Your task to perform on an android device: Open network settings Image 0: 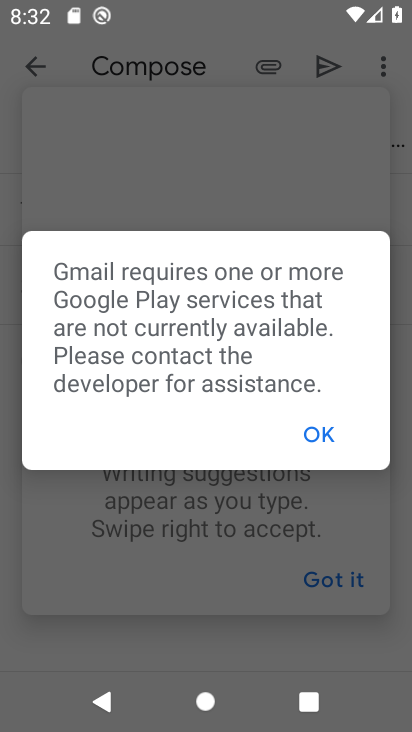
Step 0: press home button
Your task to perform on an android device: Open network settings Image 1: 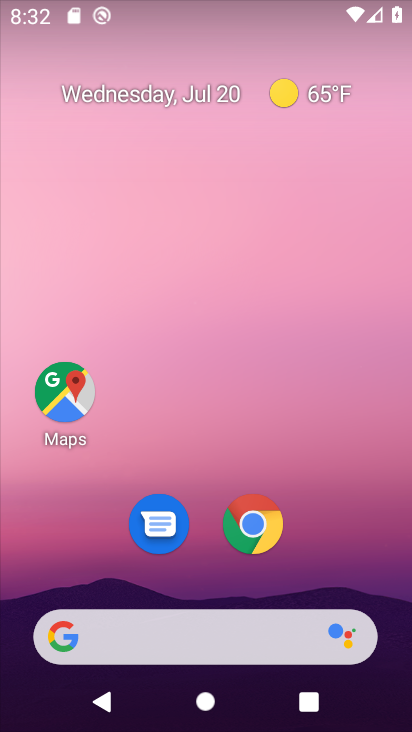
Step 1: drag from (330, 559) to (324, 40)
Your task to perform on an android device: Open network settings Image 2: 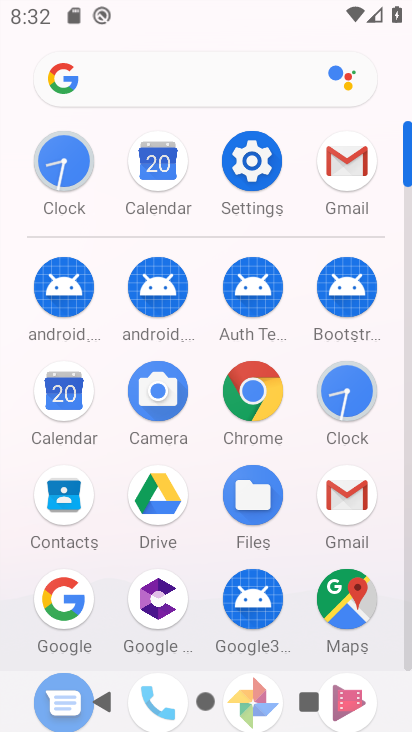
Step 2: click (245, 153)
Your task to perform on an android device: Open network settings Image 3: 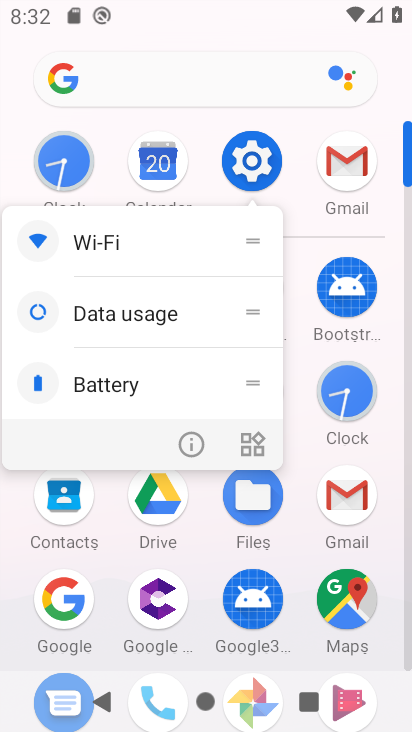
Step 3: click (245, 153)
Your task to perform on an android device: Open network settings Image 4: 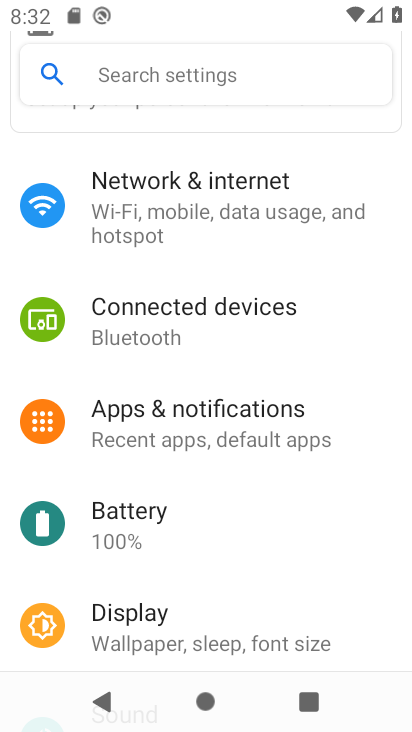
Step 4: click (235, 207)
Your task to perform on an android device: Open network settings Image 5: 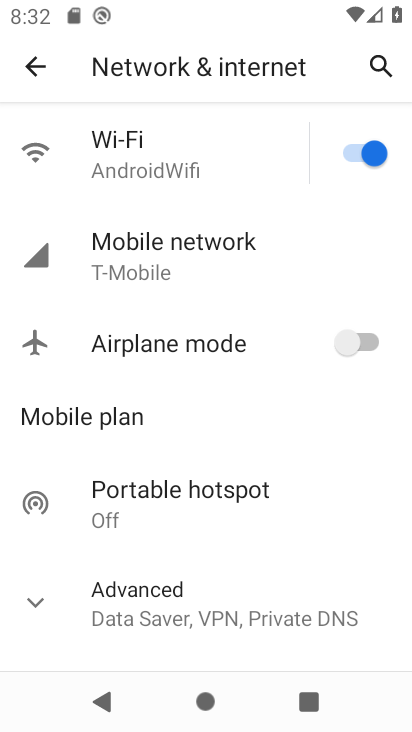
Step 5: task complete